Your task to perform on an android device: Open settings on Google Maps Image 0: 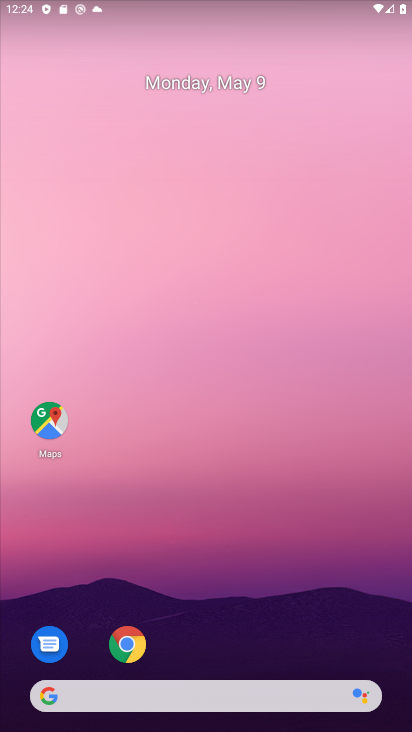
Step 0: drag from (215, 408) to (171, 214)
Your task to perform on an android device: Open settings on Google Maps Image 1: 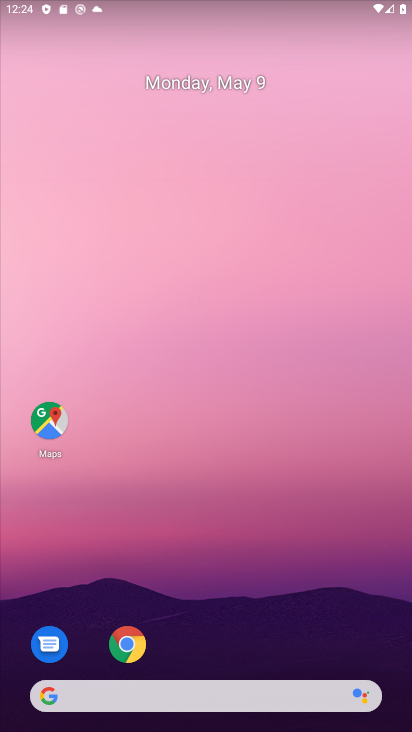
Step 1: click (56, 429)
Your task to perform on an android device: Open settings on Google Maps Image 2: 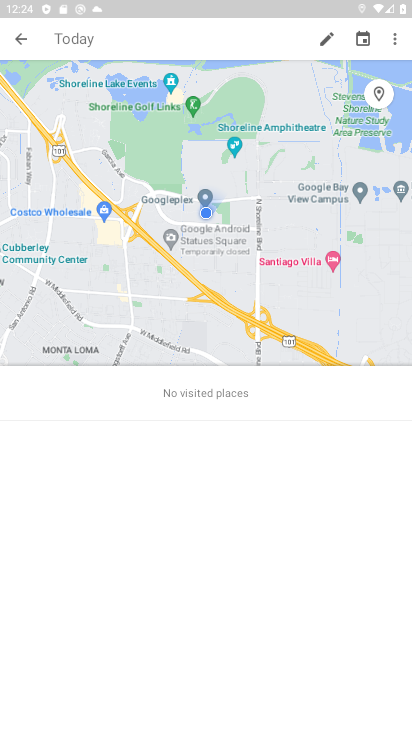
Step 2: task complete